Your task to perform on an android device: delete location history Image 0: 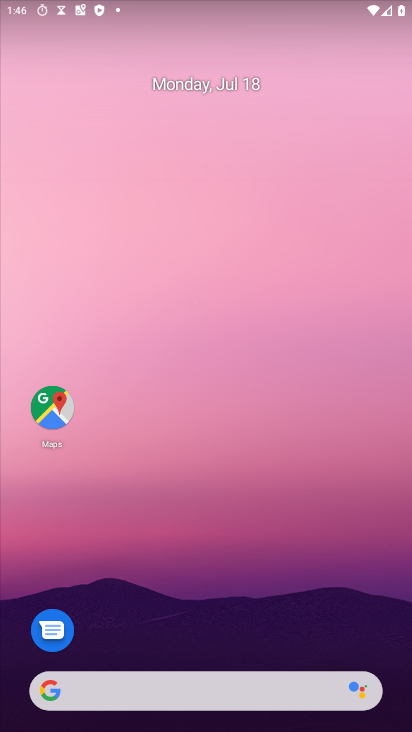
Step 0: drag from (187, 683) to (321, 51)
Your task to perform on an android device: delete location history Image 1: 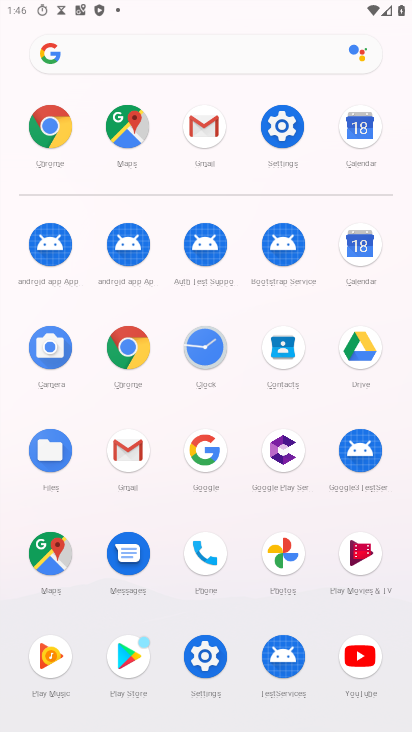
Step 1: click (55, 551)
Your task to perform on an android device: delete location history Image 2: 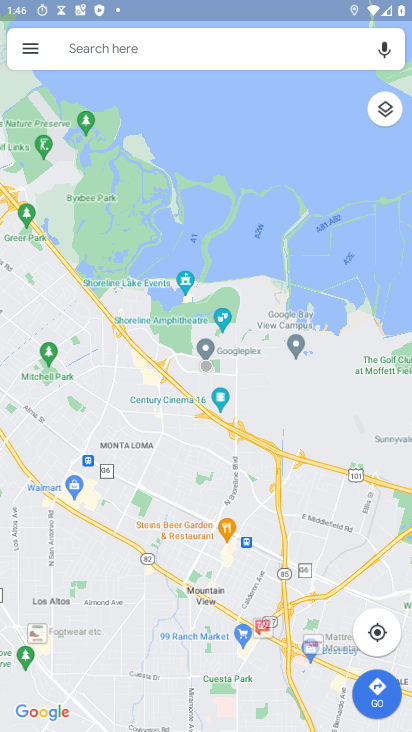
Step 2: click (33, 56)
Your task to perform on an android device: delete location history Image 3: 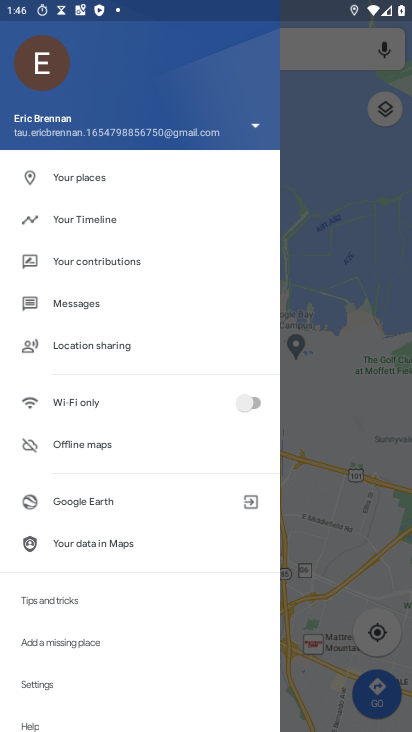
Step 3: click (117, 229)
Your task to perform on an android device: delete location history Image 4: 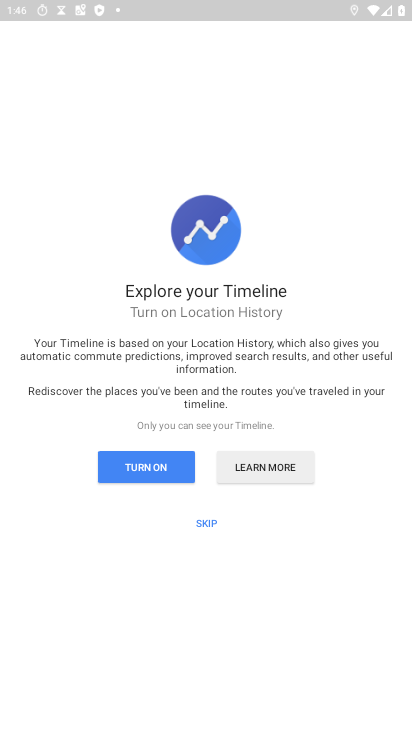
Step 4: click (199, 518)
Your task to perform on an android device: delete location history Image 5: 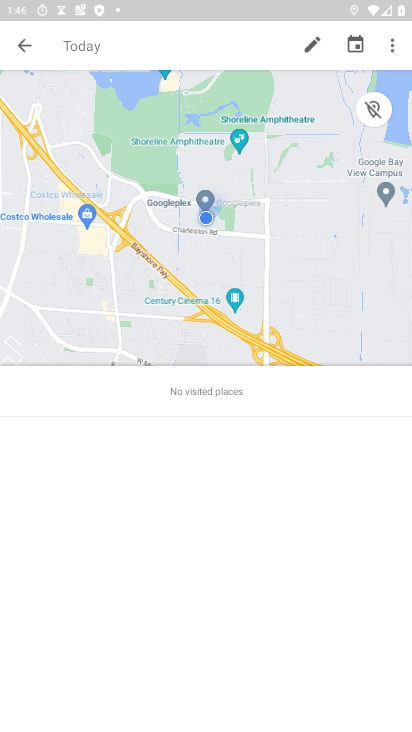
Step 5: click (397, 45)
Your task to perform on an android device: delete location history Image 6: 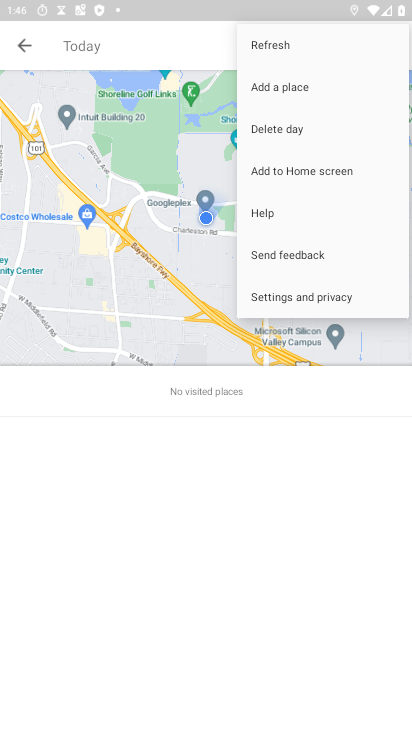
Step 6: click (295, 295)
Your task to perform on an android device: delete location history Image 7: 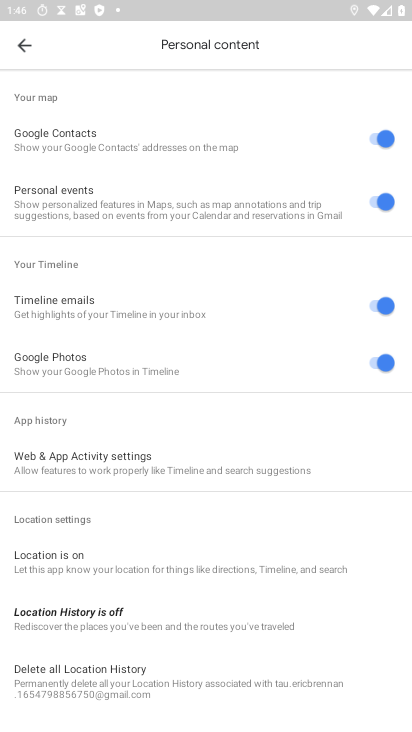
Step 7: drag from (147, 612) to (139, 303)
Your task to perform on an android device: delete location history Image 8: 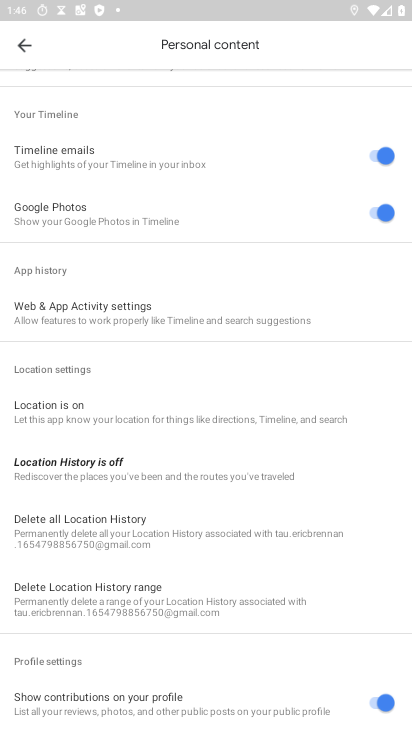
Step 8: click (155, 522)
Your task to perform on an android device: delete location history Image 9: 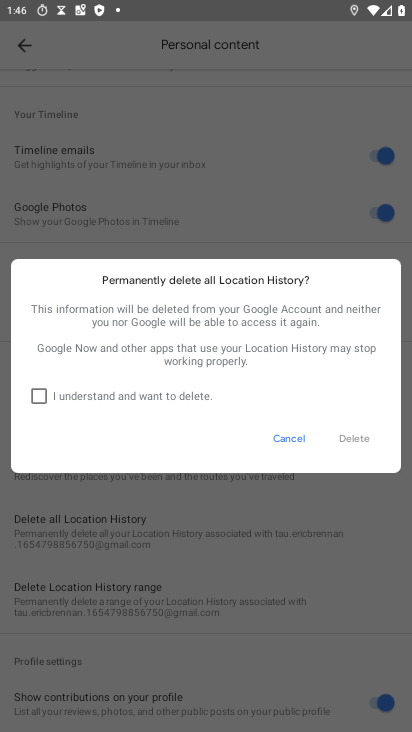
Step 9: click (34, 390)
Your task to perform on an android device: delete location history Image 10: 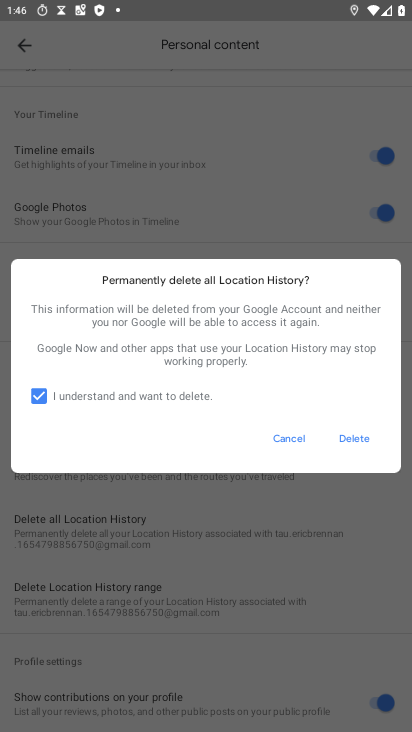
Step 10: click (350, 440)
Your task to perform on an android device: delete location history Image 11: 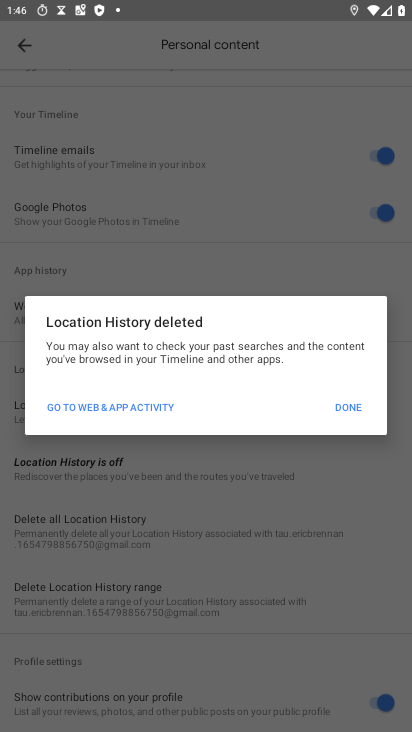
Step 11: click (349, 403)
Your task to perform on an android device: delete location history Image 12: 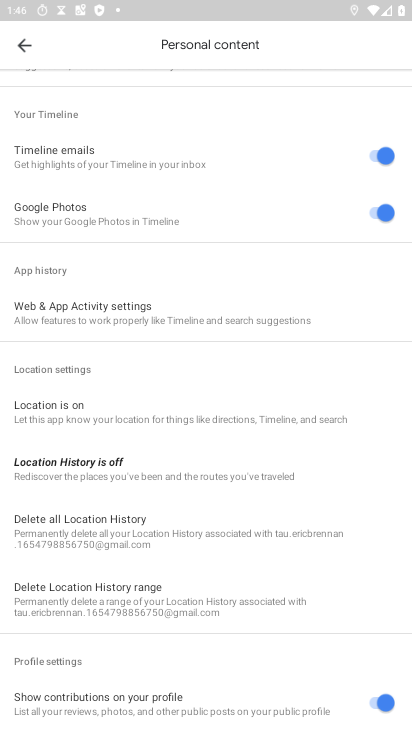
Step 12: task complete